Your task to perform on an android device: change the clock display to show seconds Image 0: 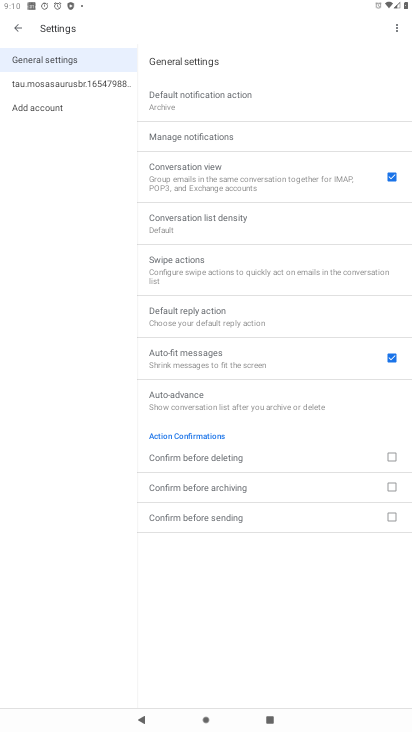
Step 0: press home button
Your task to perform on an android device: change the clock display to show seconds Image 1: 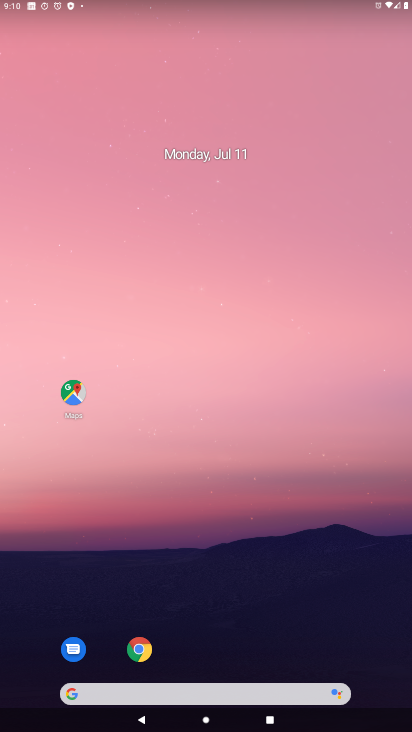
Step 1: drag from (207, 693) to (208, 85)
Your task to perform on an android device: change the clock display to show seconds Image 2: 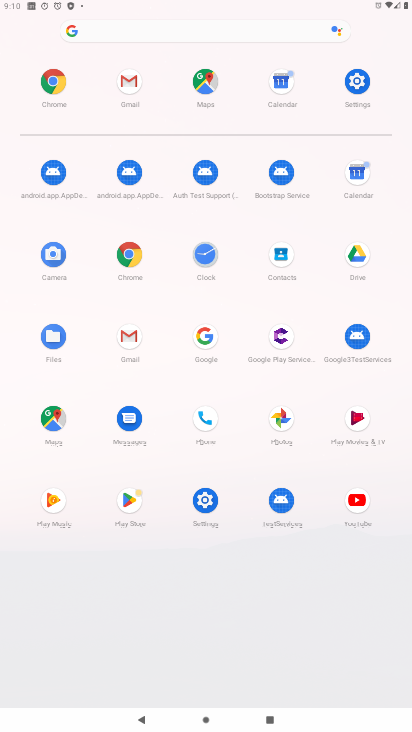
Step 2: click (205, 255)
Your task to perform on an android device: change the clock display to show seconds Image 3: 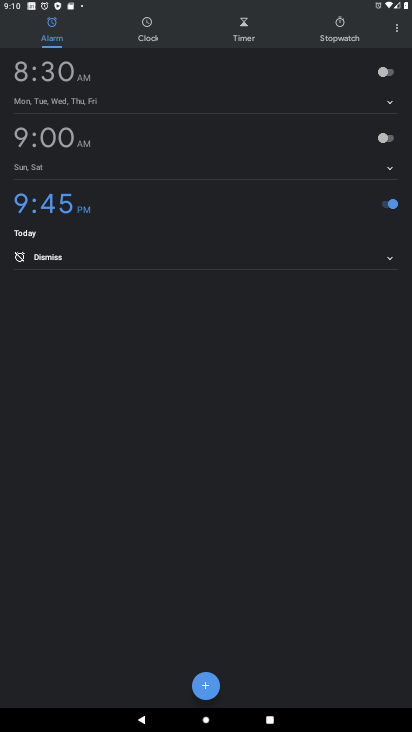
Step 3: click (399, 31)
Your task to perform on an android device: change the clock display to show seconds Image 4: 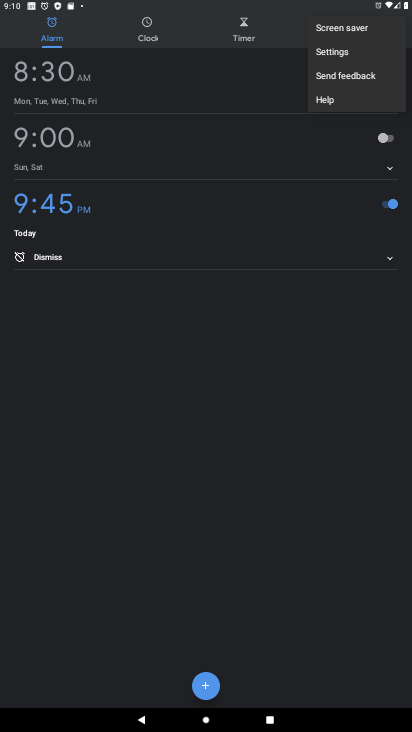
Step 4: click (345, 54)
Your task to perform on an android device: change the clock display to show seconds Image 5: 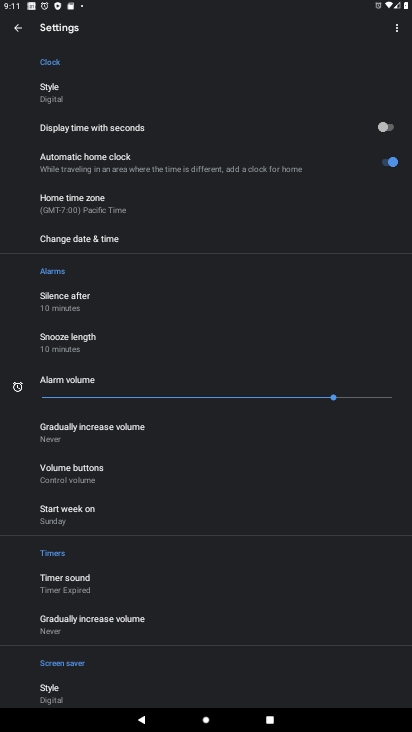
Step 5: click (381, 125)
Your task to perform on an android device: change the clock display to show seconds Image 6: 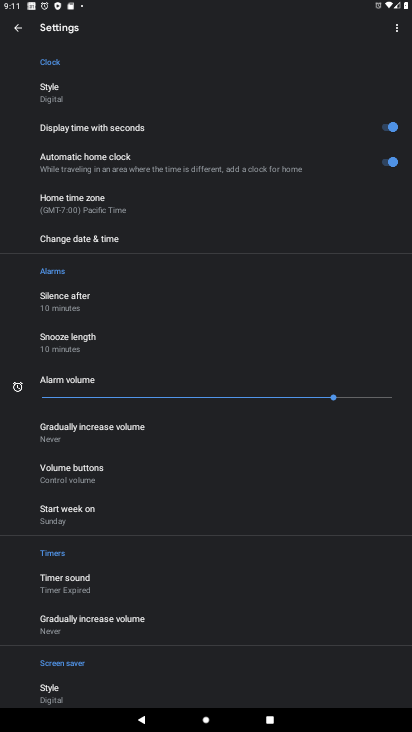
Step 6: task complete